Your task to perform on an android device: empty trash in google photos Image 0: 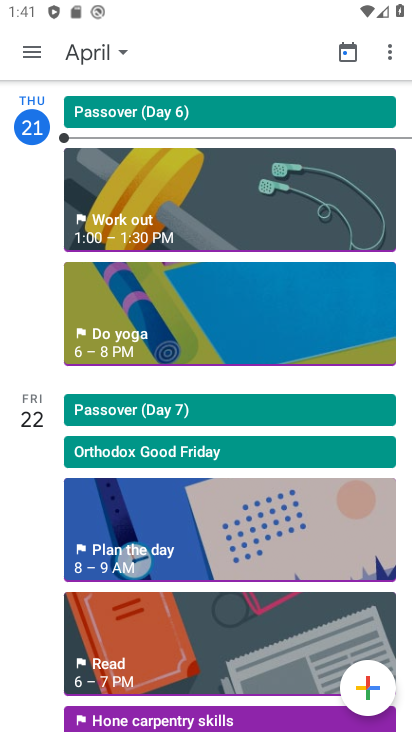
Step 0: press home button
Your task to perform on an android device: empty trash in google photos Image 1: 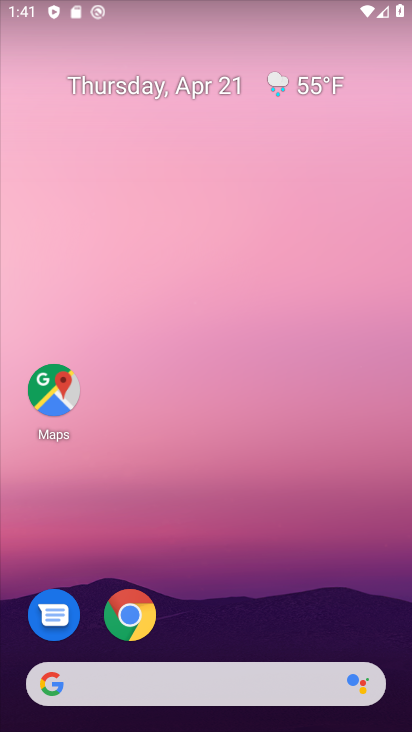
Step 1: drag from (234, 635) to (279, 286)
Your task to perform on an android device: empty trash in google photos Image 2: 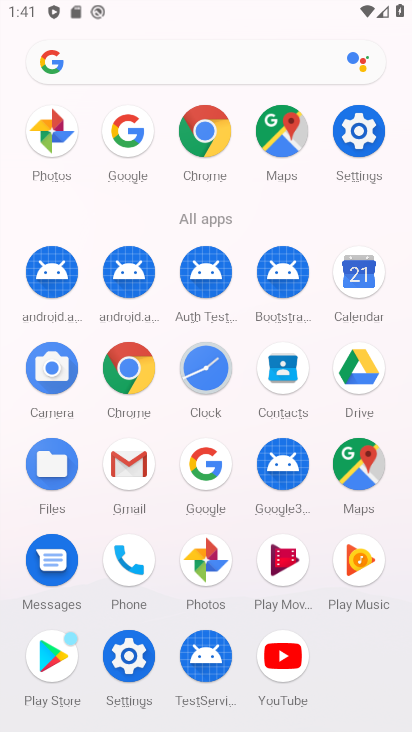
Step 2: click (205, 564)
Your task to perform on an android device: empty trash in google photos Image 3: 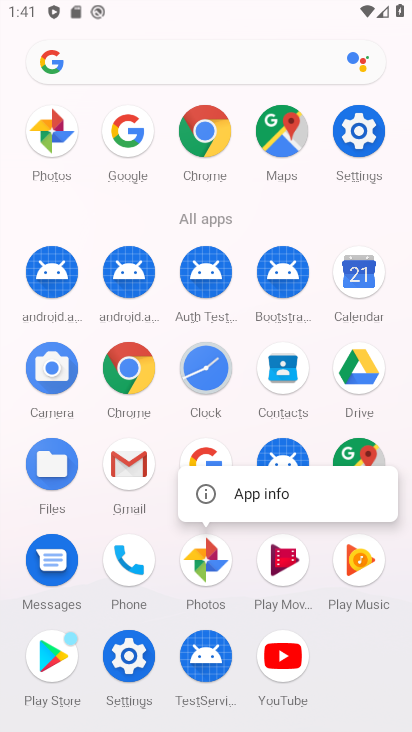
Step 3: click (205, 564)
Your task to perform on an android device: empty trash in google photos Image 4: 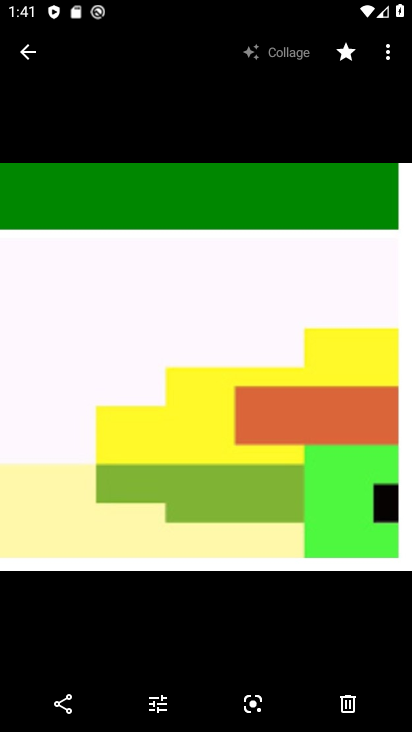
Step 4: click (30, 57)
Your task to perform on an android device: empty trash in google photos Image 5: 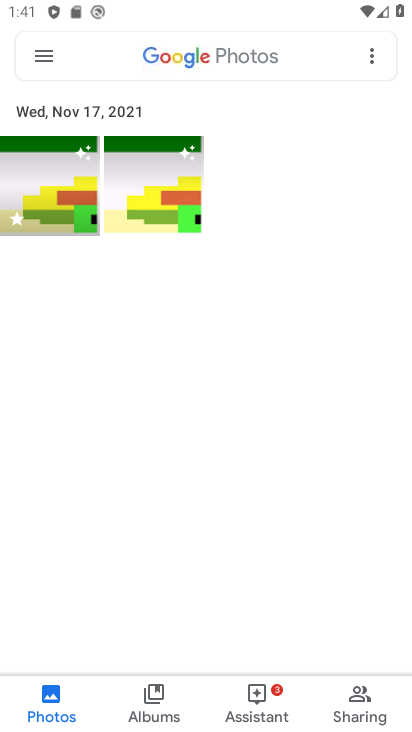
Step 5: click (49, 56)
Your task to perform on an android device: empty trash in google photos Image 6: 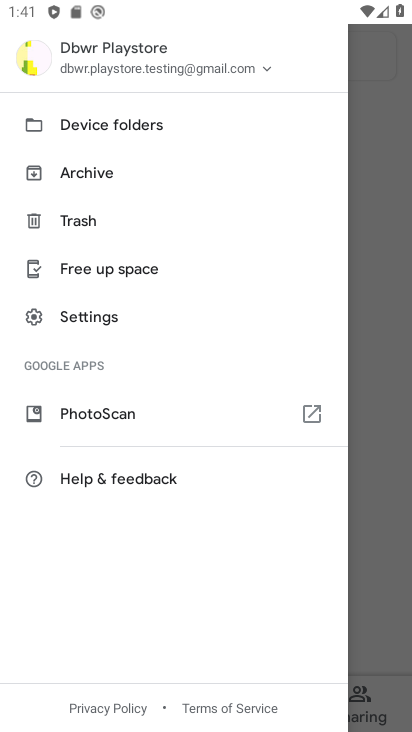
Step 6: click (77, 226)
Your task to perform on an android device: empty trash in google photos Image 7: 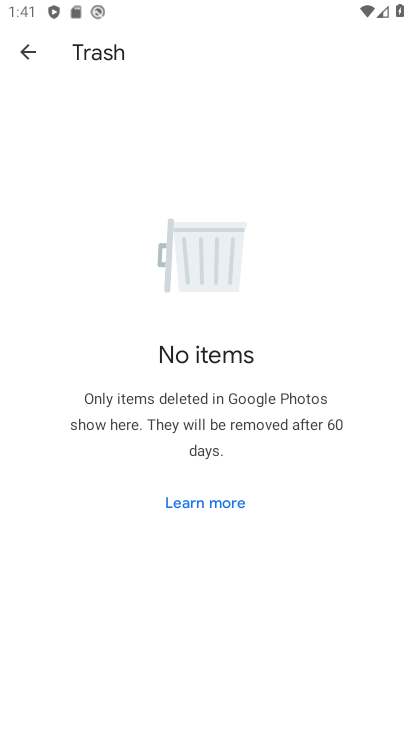
Step 7: task complete